Your task to perform on an android device: Do I have any events today? Image 0: 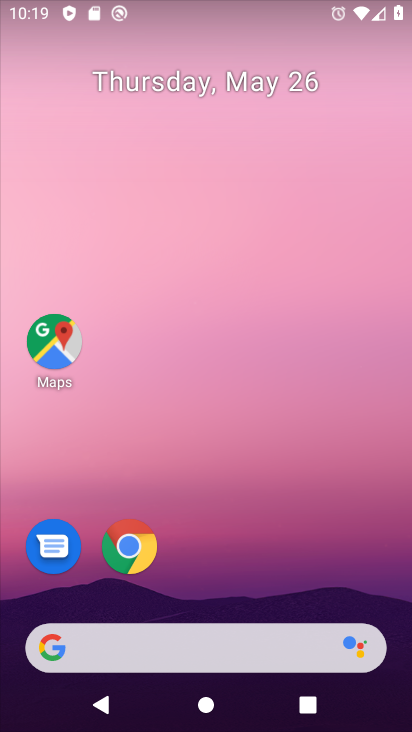
Step 0: drag from (273, 436) to (273, 103)
Your task to perform on an android device: Do I have any events today? Image 1: 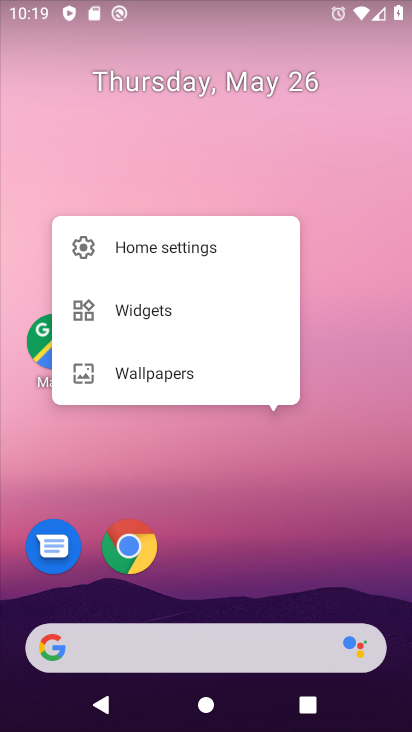
Step 1: drag from (310, 442) to (216, 47)
Your task to perform on an android device: Do I have any events today? Image 2: 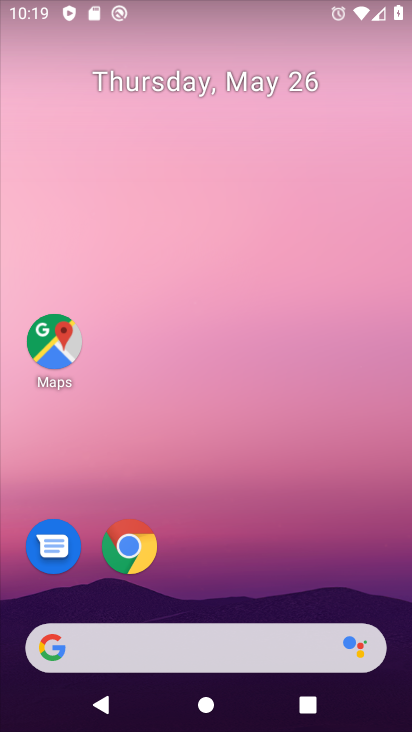
Step 2: drag from (226, 567) to (209, 4)
Your task to perform on an android device: Do I have any events today? Image 3: 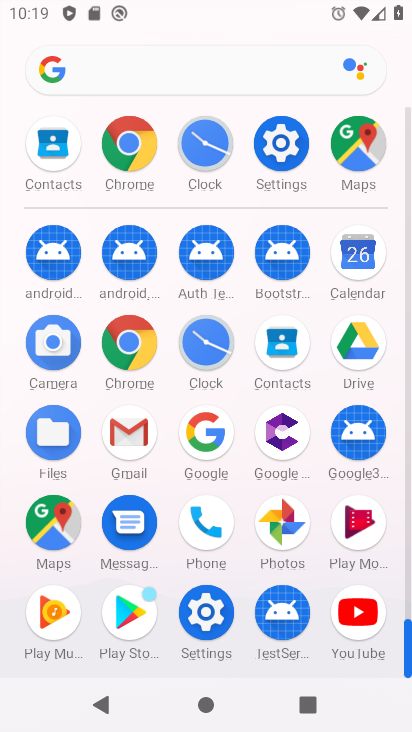
Step 3: click (356, 255)
Your task to perform on an android device: Do I have any events today? Image 4: 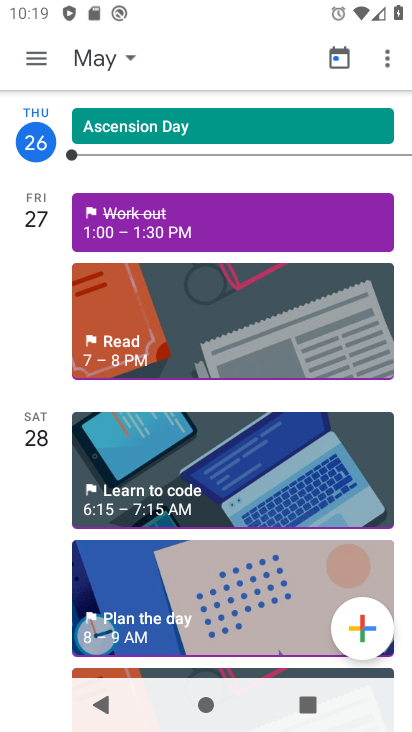
Step 4: task complete